Your task to perform on an android device: Do I have any events this weekend? Image 0: 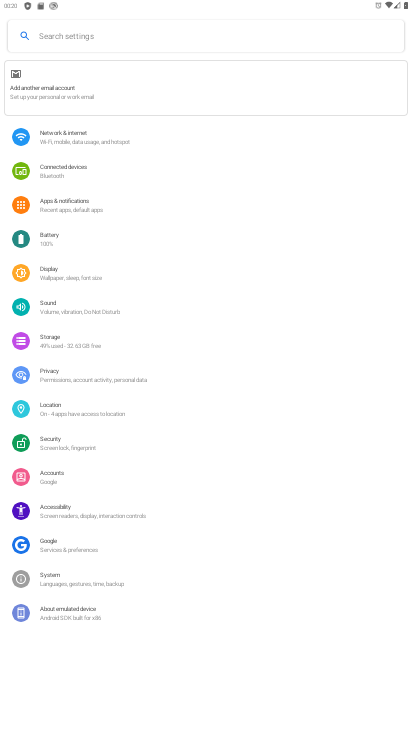
Step 0: press home button
Your task to perform on an android device: Do I have any events this weekend? Image 1: 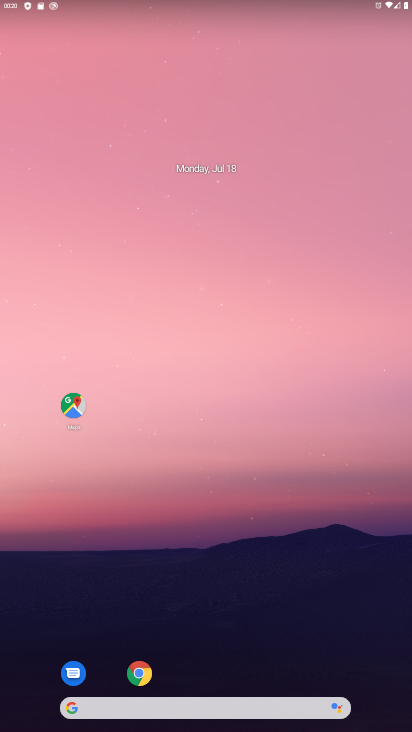
Step 1: drag from (260, 655) to (220, 73)
Your task to perform on an android device: Do I have any events this weekend? Image 2: 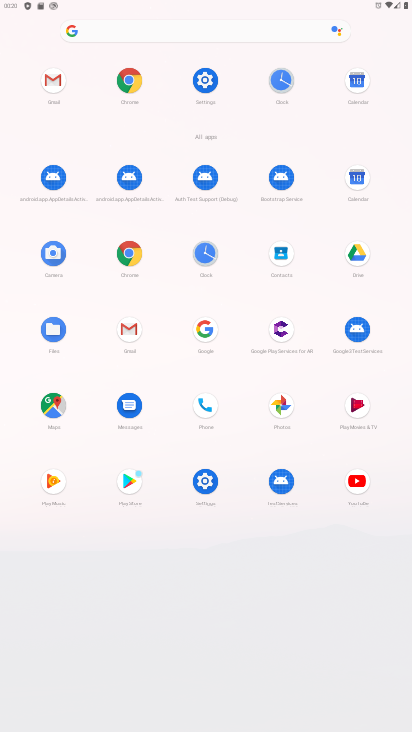
Step 2: click (358, 109)
Your task to perform on an android device: Do I have any events this weekend? Image 3: 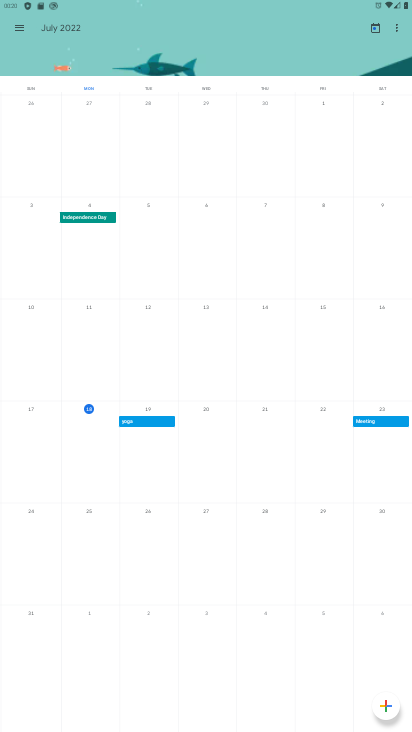
Step 3: task complete